Your task to perform on an android device: toggle data saver in the chrome app Image 0: 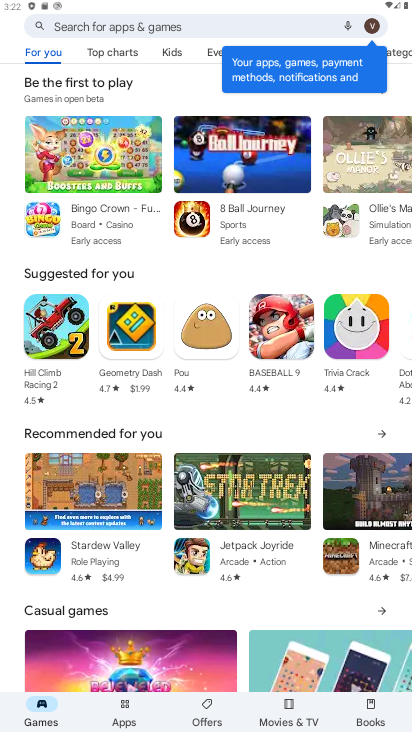
Step 0: press home button
Your task to perform on an android device: toggle data saver in the chrome app Image 1: 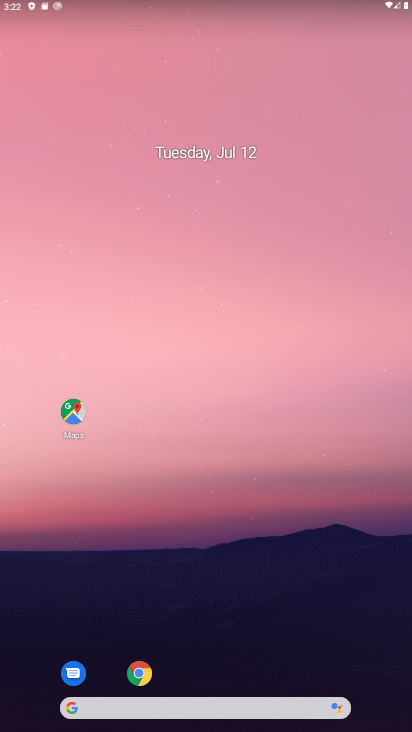
Step 1: click (141, 676)
Your task to perform on an android device: toggle data saver in the chrome app Image 2: 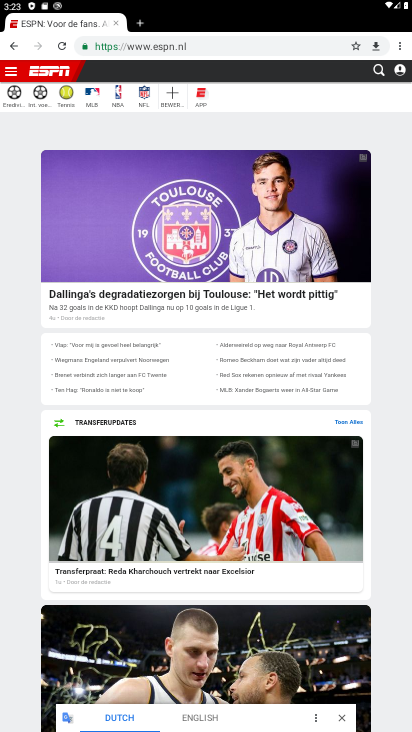
Step 2: click (399, 47)
Your task to perform on an android device: toggle data saver in the chrome app Image 3: 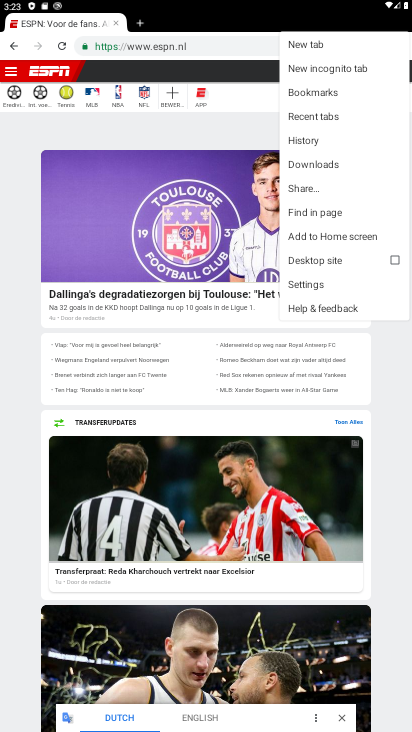
Step 3: click (307, 284)
Your task to perform on an android device: toggle data saver in the chrome app Image 4: 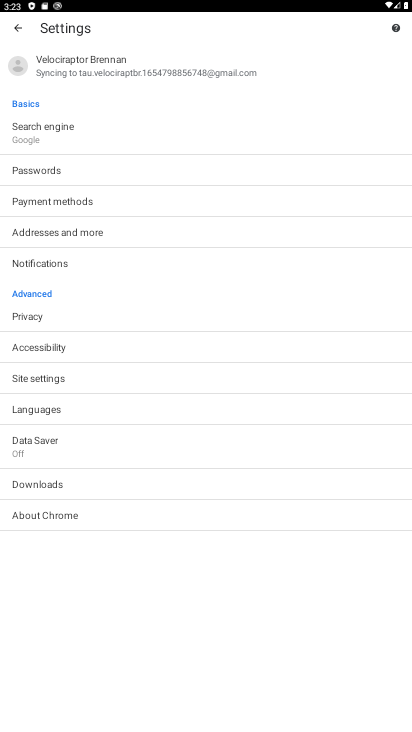
Step 4: click (40, 438)
Your task to perform on an android device: toggle data saver in the chrome app Image 5: 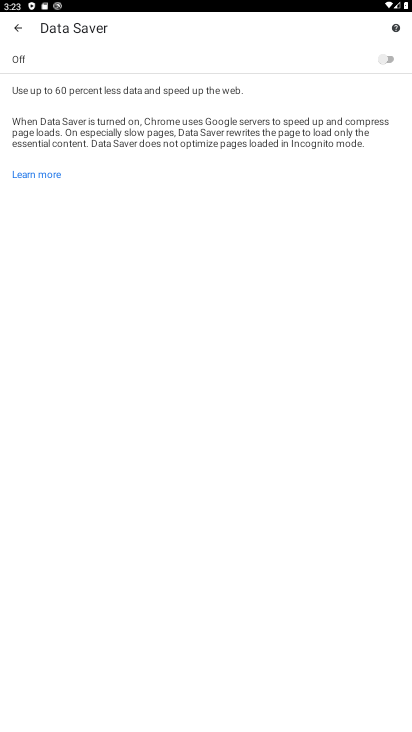
Step 5: click (384, 59)
Your task to perform on an android device: toggle data saver in the chrome app Image 6: 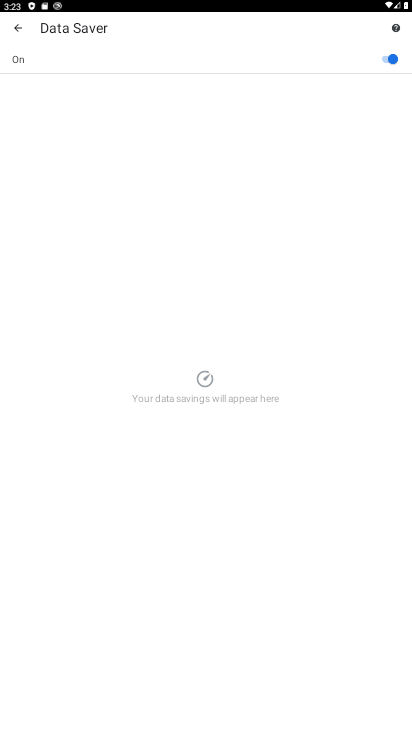
Step 6: task complete